Your task to perform on an android device: allow notifications from all sites in the chrome app Image 0: 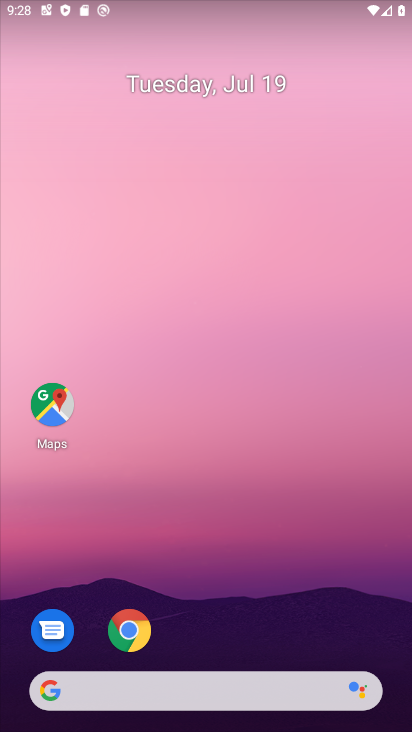
Step 0: click (129, 633)
Your task to perform on an android device: allow notifications from all sites in the chrome app Image 1: 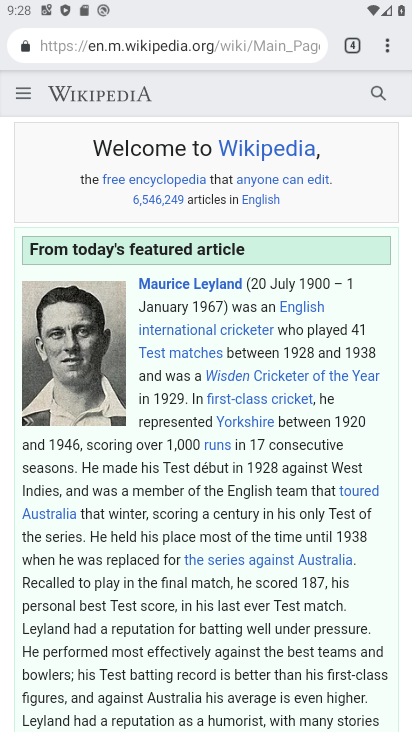
Step 1: click (384, 44)
Your task to perform on an android device: allow notifications from all sites in the chrome app Image 2: 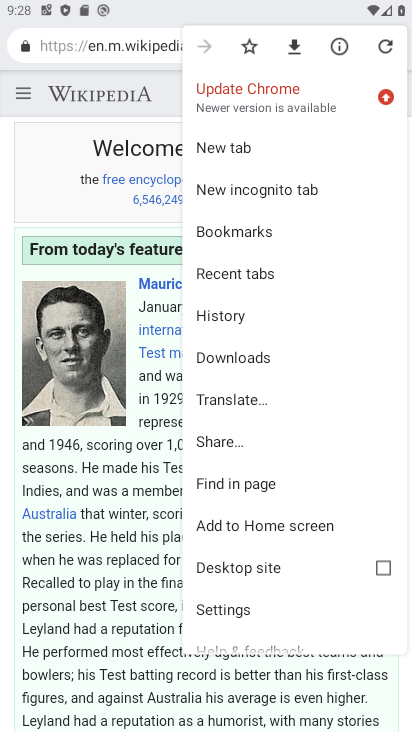
Step 2: click (245, 606)
Your task to perform on an android device: allow notifications from all sites in the chrome app Image 3: 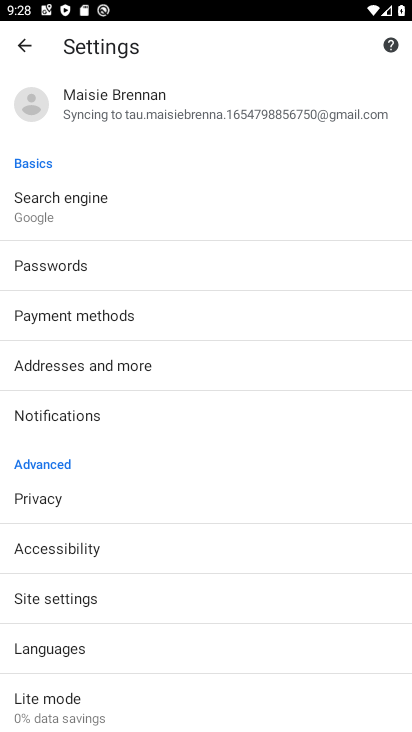
Step 3: click (52, 595)
Your task to perform on an android device: allow notifications from all sites in the chrome app Image 4: 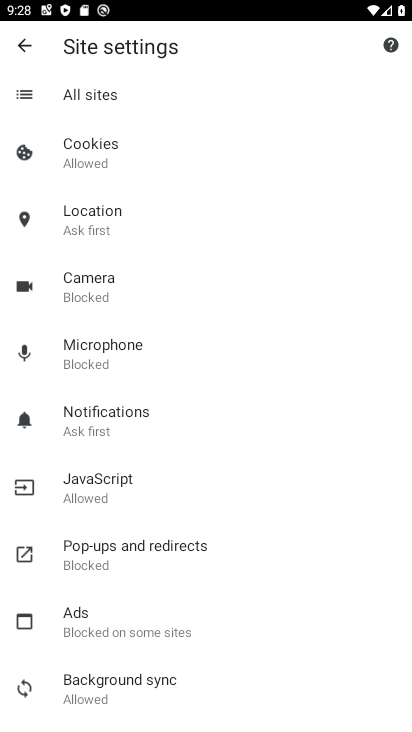
Step 4: click (98, 428)
Your task to perform on an android device: allow notifications from all sites in the chrome app Image 5: 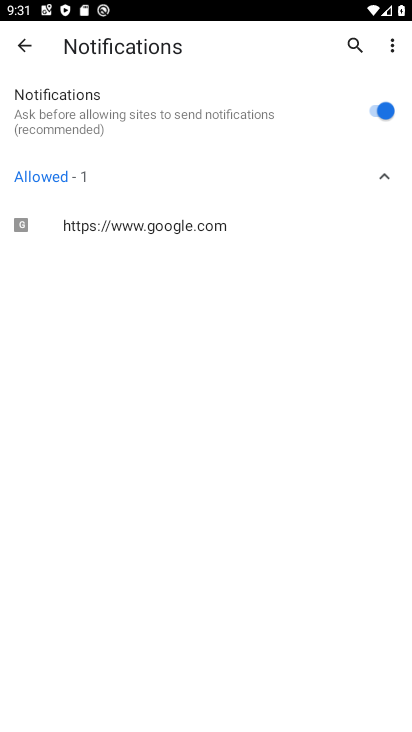
Step 5: task complete